Your task to perform on an android device: Open eBay Image 0: 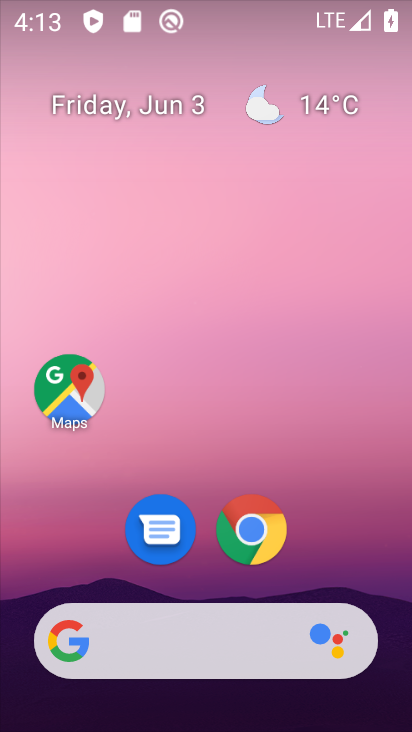
Step 0: press home button
Your task to perform on an android device: Open eBay Image 1: 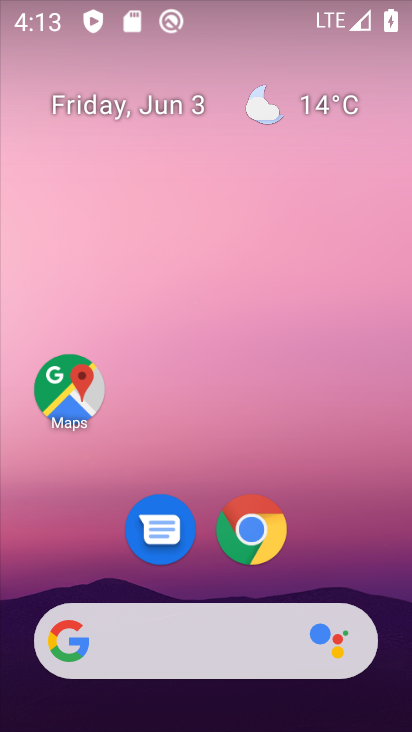
Step 1: click (248, 521)
Your task to perform on an android device: Open eBay Image 2: 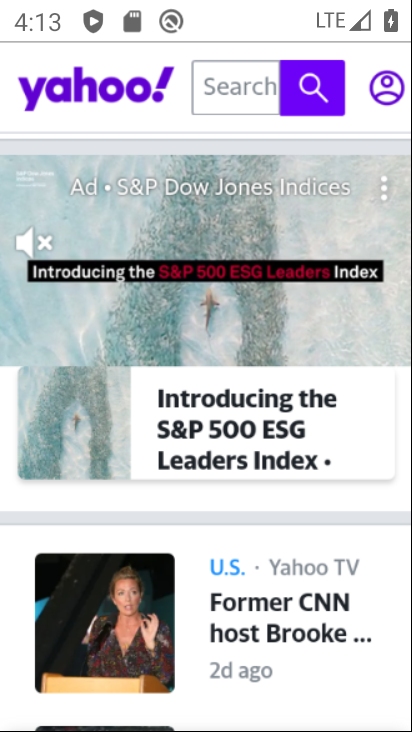
Step 2: drag from (263, 153) to (255, 447)
Your task to perform on an android device: Open eBay Image 3: 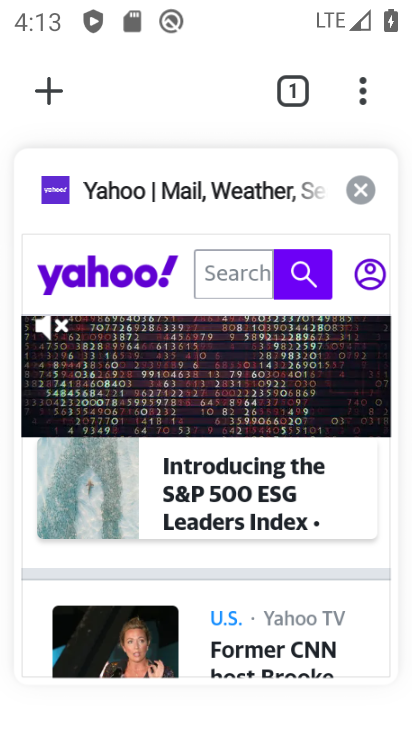
Step 3: click (296, 89)
Your task to perform on an android device: Open eBay Image 4: 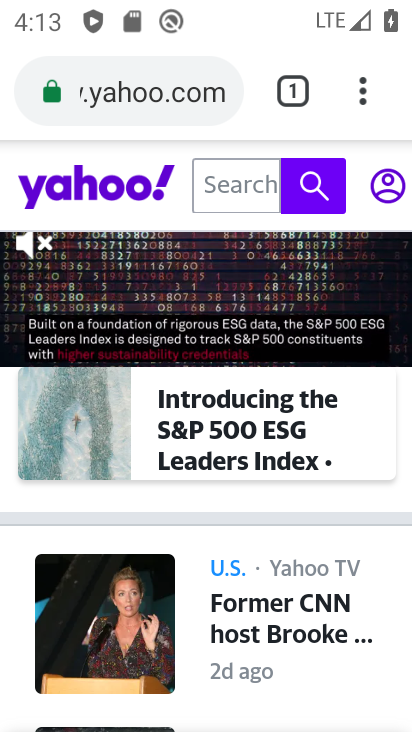
Step 4: click (296, 89)
Your task to perform on an android device: Open eBay Image 5: 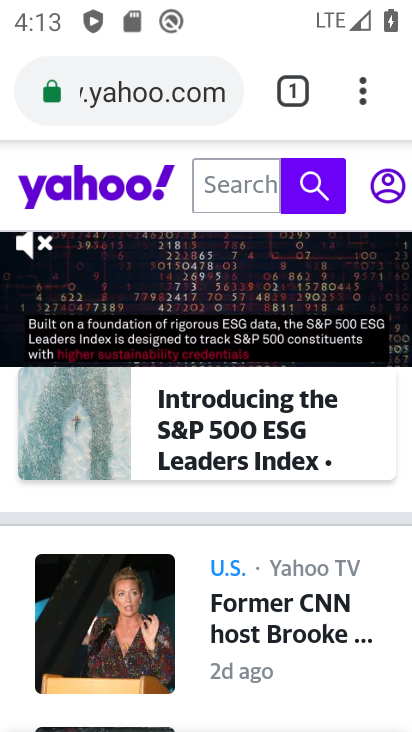
Step 5: click (290, 87)
Your task to perform on an android device: Open eBay Image 6: 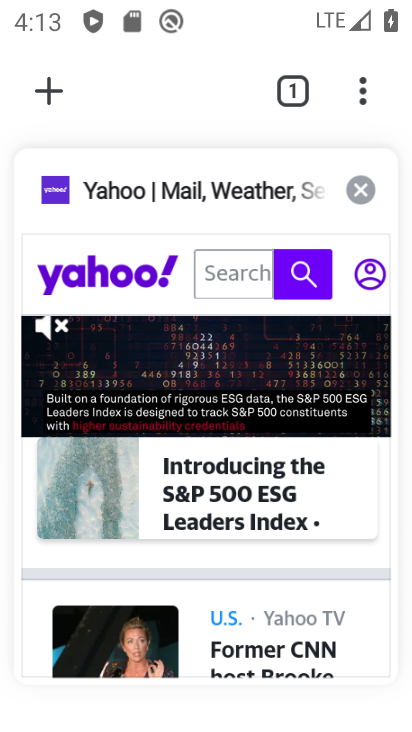
Step 6: click (358, 186)
Your task to perform on an android device: Open eBay Image 7: 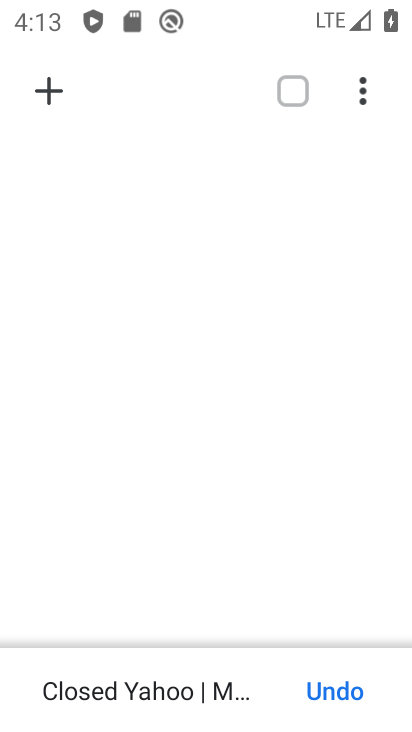
Step 7: click (52, 89)
Your task to perform on an android device: Open eBay Image 8: 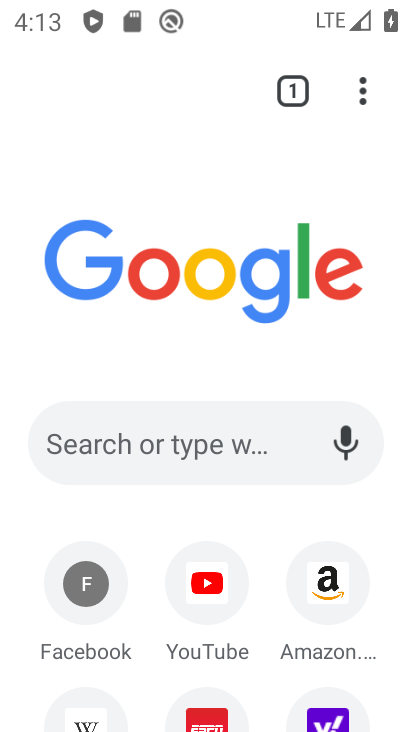
Step 8: click (159, 431)
Your task to perform on an android device: Open eBay Image 9: 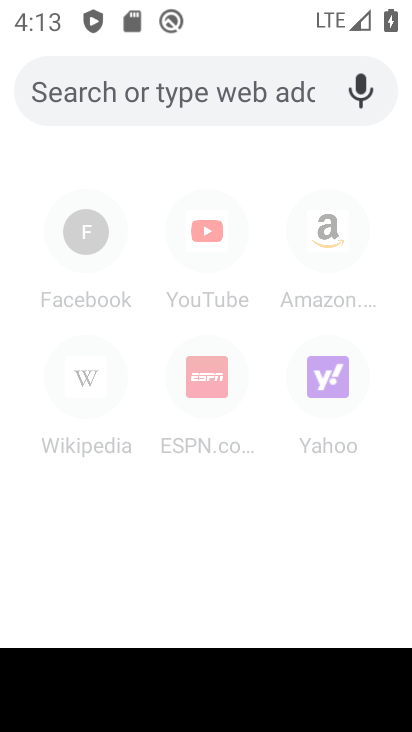
Step 9: type "ebay"
Your task to perform on an android device: Open eBay Image 10: 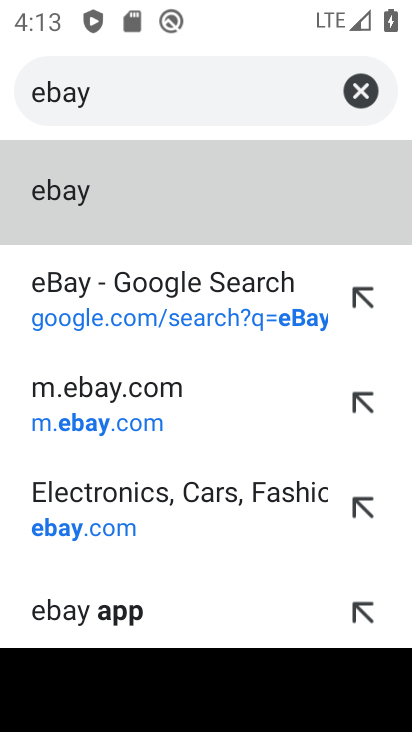
Step 10: click (104, 289)
Your task to perform on an android device: Open eBay Image 11: 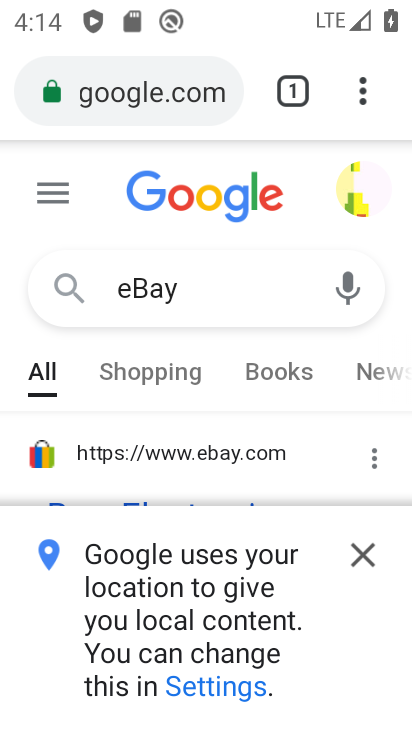
Step 11: click (356, 551)
Your task to perform on an android device: Open eBay Image 12: 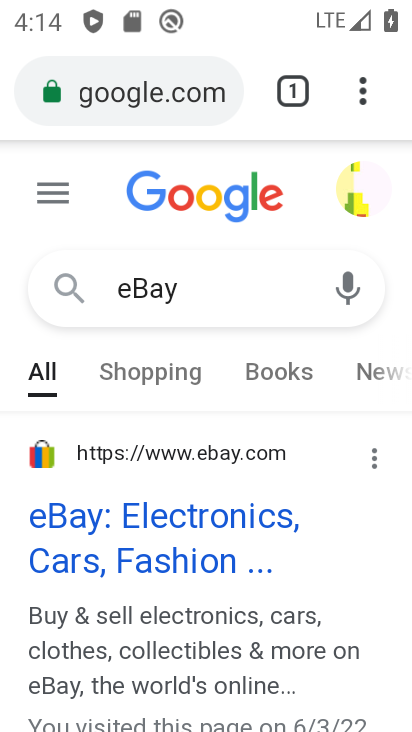
Step 12: click (196, 514)
Your task to perform on an android device: Open eBay Image 13: 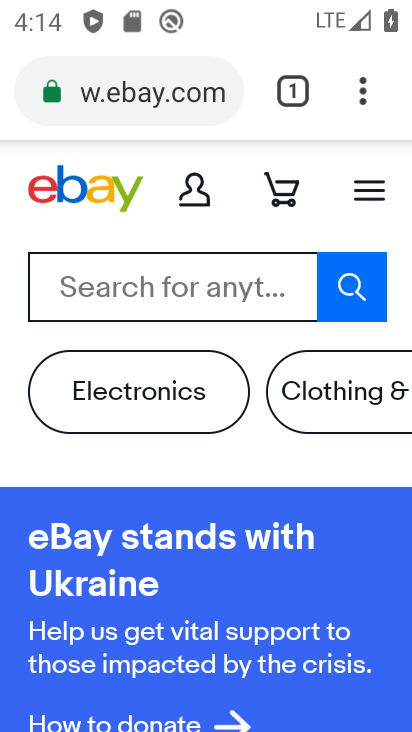
Step 13: drag from (263, 594) to (274, 168)
Your task to perform on an android device: Open eBay Image 14: 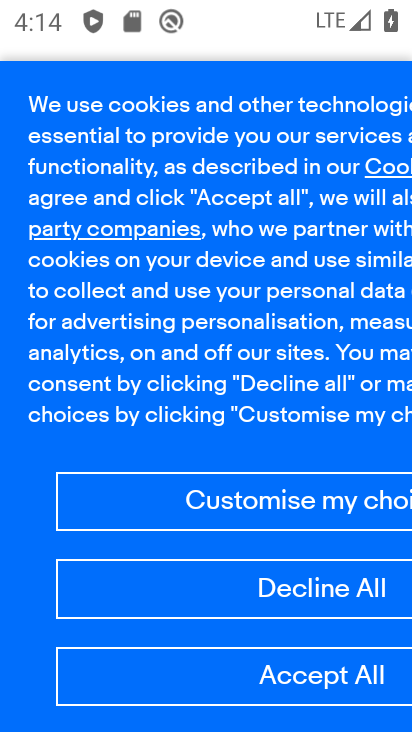
Step 14: click (302, 683)
Your task to perform on an android device: Open eBay Image 15: 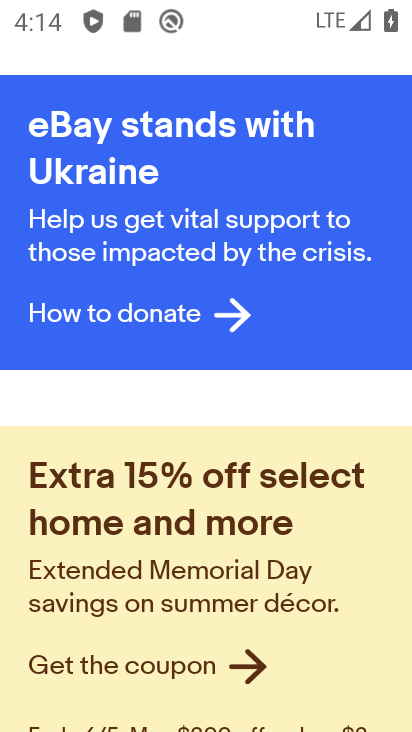
Step 15: task complete